Your task to perform on an android device: open a new tab in the chrome app Image 0: 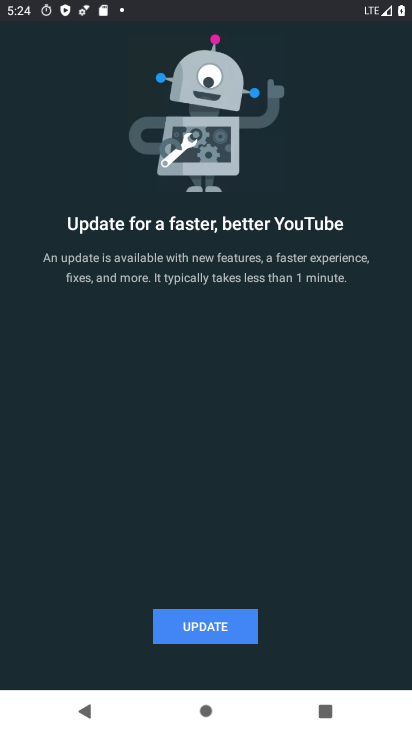
Step 0: press home button
Your task to perform on an android device: open a new tab in the chrome app Image 1: 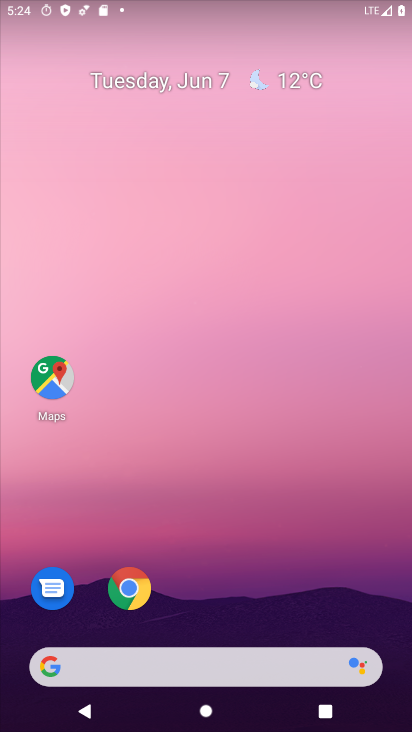
Step 1: drag from (167, 623) to (218, 61)
Your task to perform on an android device: open a new tab in the chrome app Image 2: 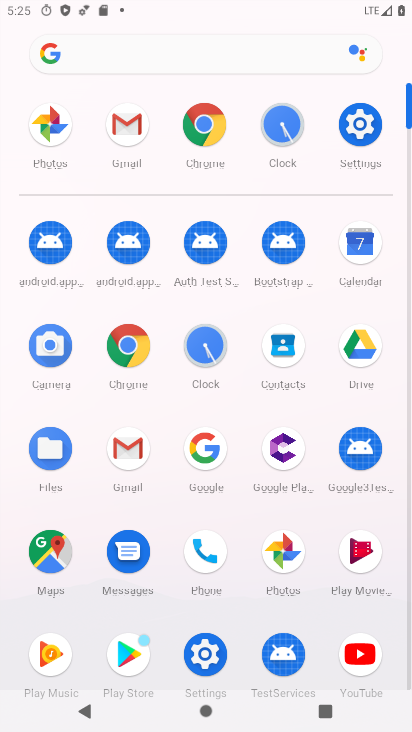
Step 2: click (127, 344)
Your task to perform on an android device: open a new tab in the chrome app Image 3: 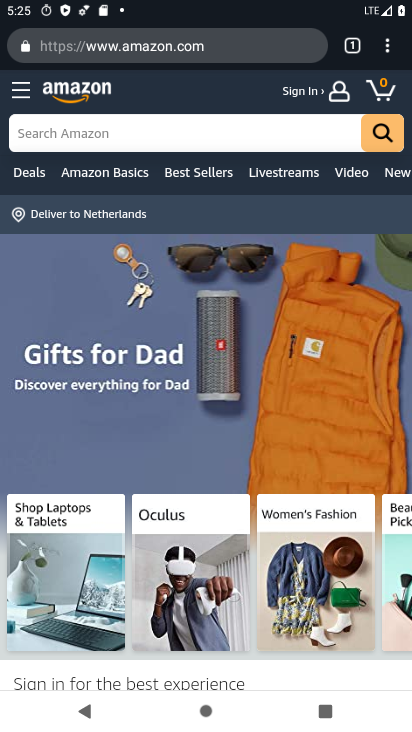
Step 3: click (355, 49)
Your task to perform on an android device: open a new tab in the chrome app Image 4: 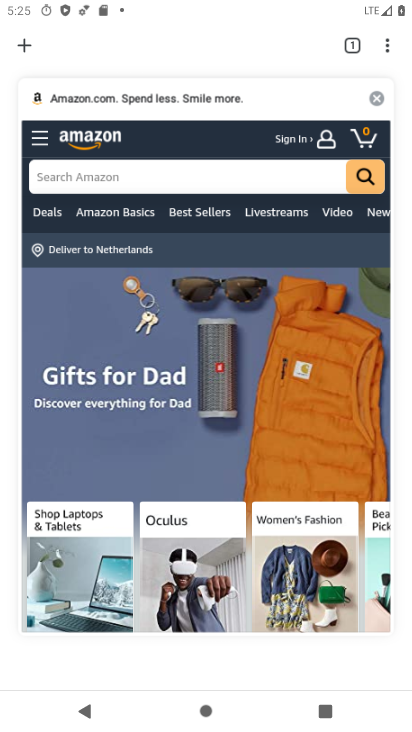
Step 4: click (18, 52)
Your task to perform on an android device: open a new tab in the chrome app Image 5: 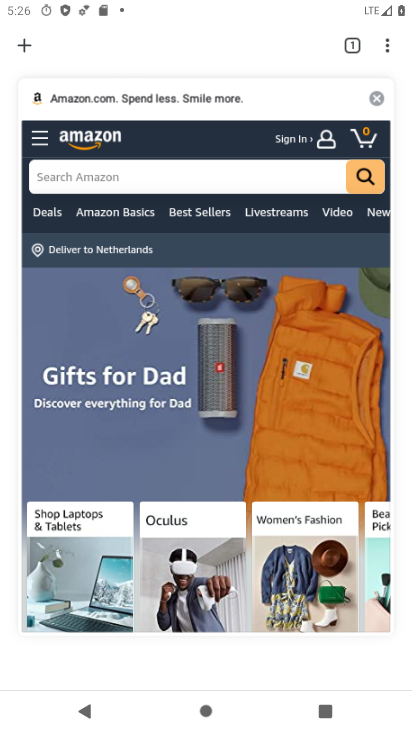
Step 5: click (26, 51)
Your task to perform on an android device: open a new tab in the chrome app Image 6: 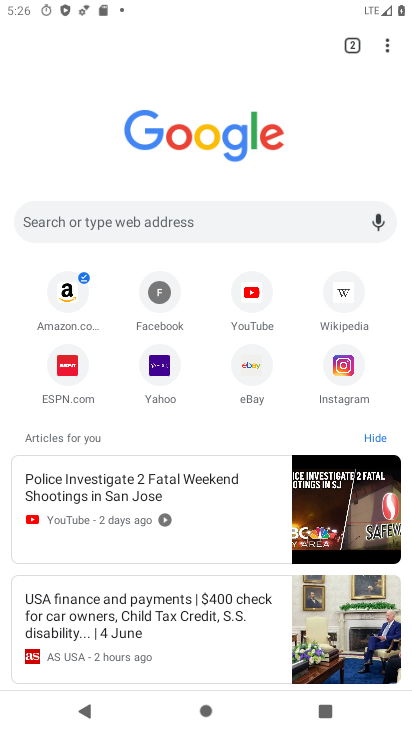
Step 6: task complete